Your task to perform on an android device: Open Youtube and go to the subscriptions tab Image 0: 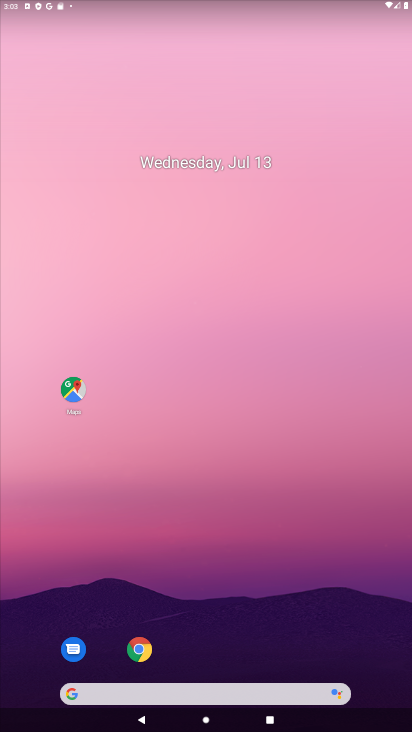
Step 0: drag from (227, 657) to (218, 168)
Your task to perform on an android device: Open Youtube and go to the subscriptions tab Image 1: 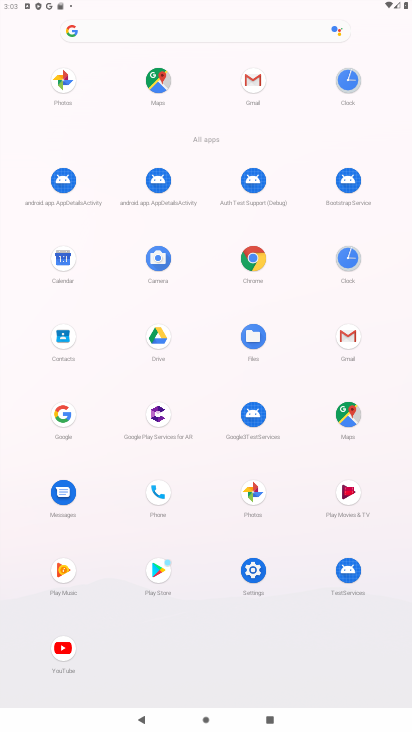
Step 1: click (66, 647)
Your task to perform on an android device: Open Youtube and go to the subscriptions tab Image 2: 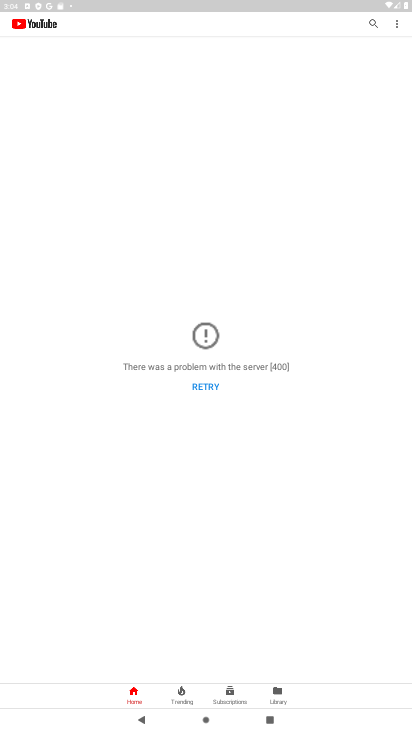
Step 2: click (231, 689)
Your task to perform on an android device: Open Youtube and go to the subscriptions tab Image 3: 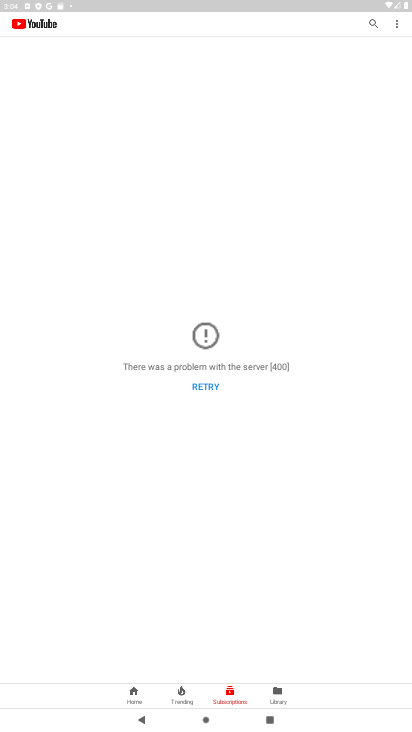
Step 3: task complete